Your task to perform on an android device: open a bookmark in the chrome app Image 0: 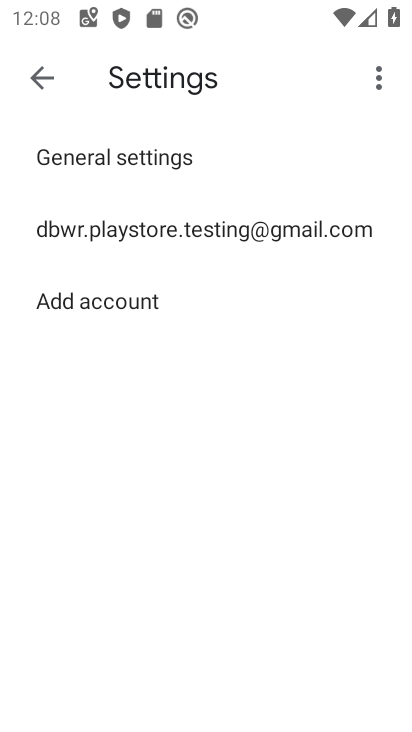
Step 0: press home button
Your task to perform on an android device: open a bookmark in the chrome app Image 1: 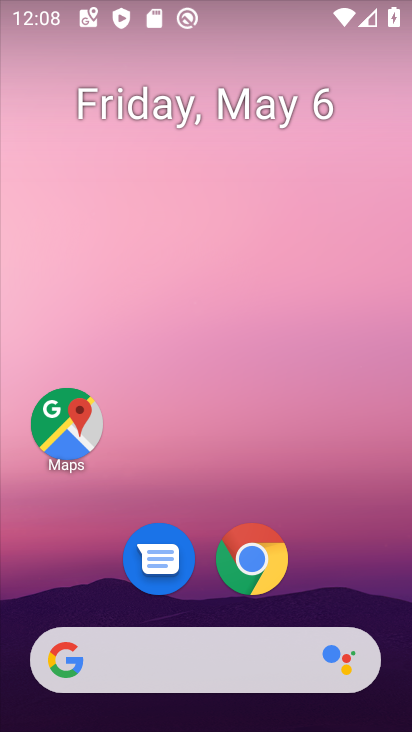
Step 1: drag from (337, 600) to (340, 142)
Your task to perform on an android device: open a bookmark in the chrome app Image 2: 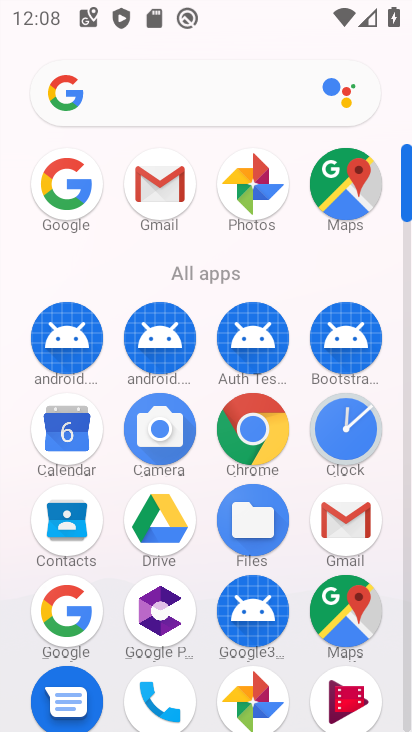
Step 2: click (257, 444)
Your task to perform on an android device: open a bookmark in the chrome app Image 3: 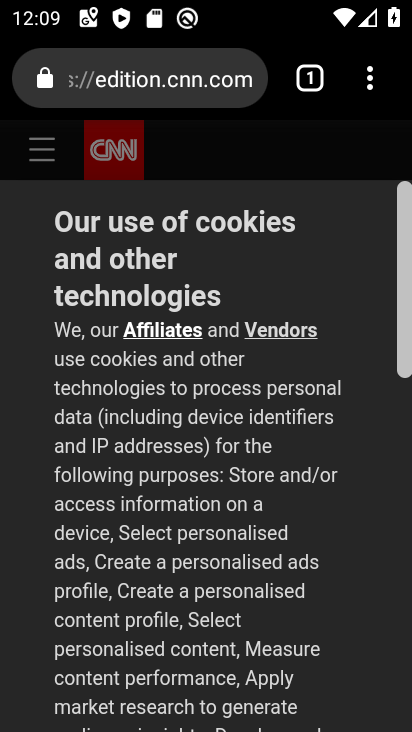
Step 3: click (367, 75)
Your task to perform on an android device: open a bookmark in the chrome app Image 4: 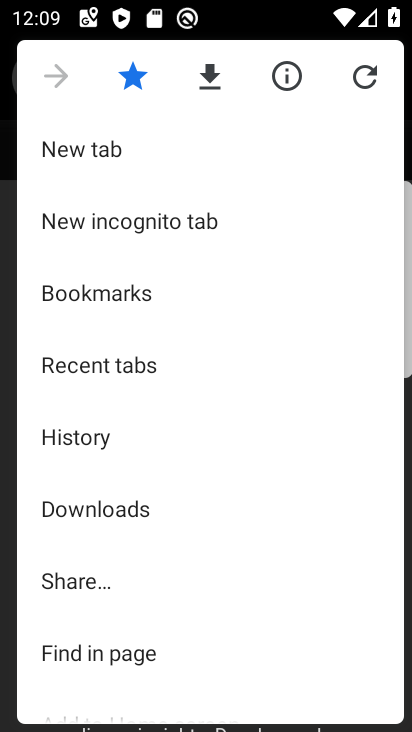
Step 4: click (193, 301)
Your task to perform on an android device: open a bookmark in the chrome app Image 5: 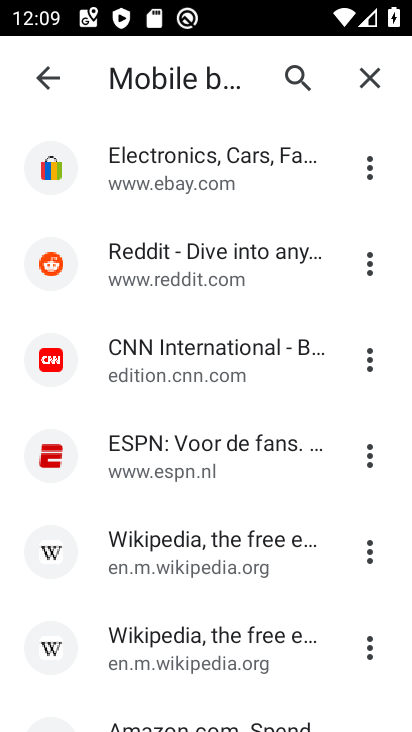
Step 5: click (248, 559)
Your task to perform on an android device: open a bookmark in the chrome app Image 6: 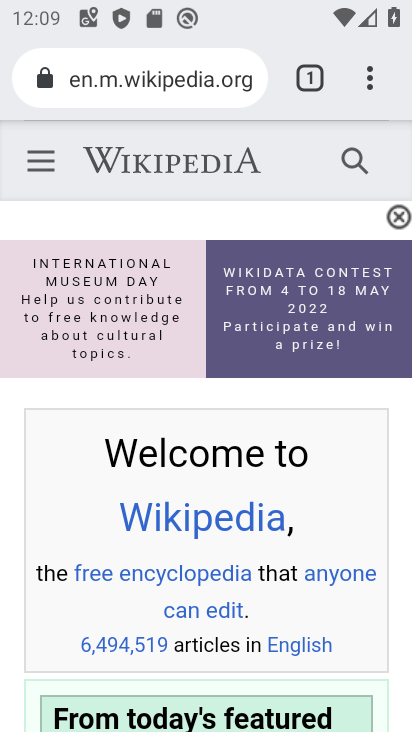
Step 6: task complete